Your task to perform on an android device: Go to sound settings Image 0: 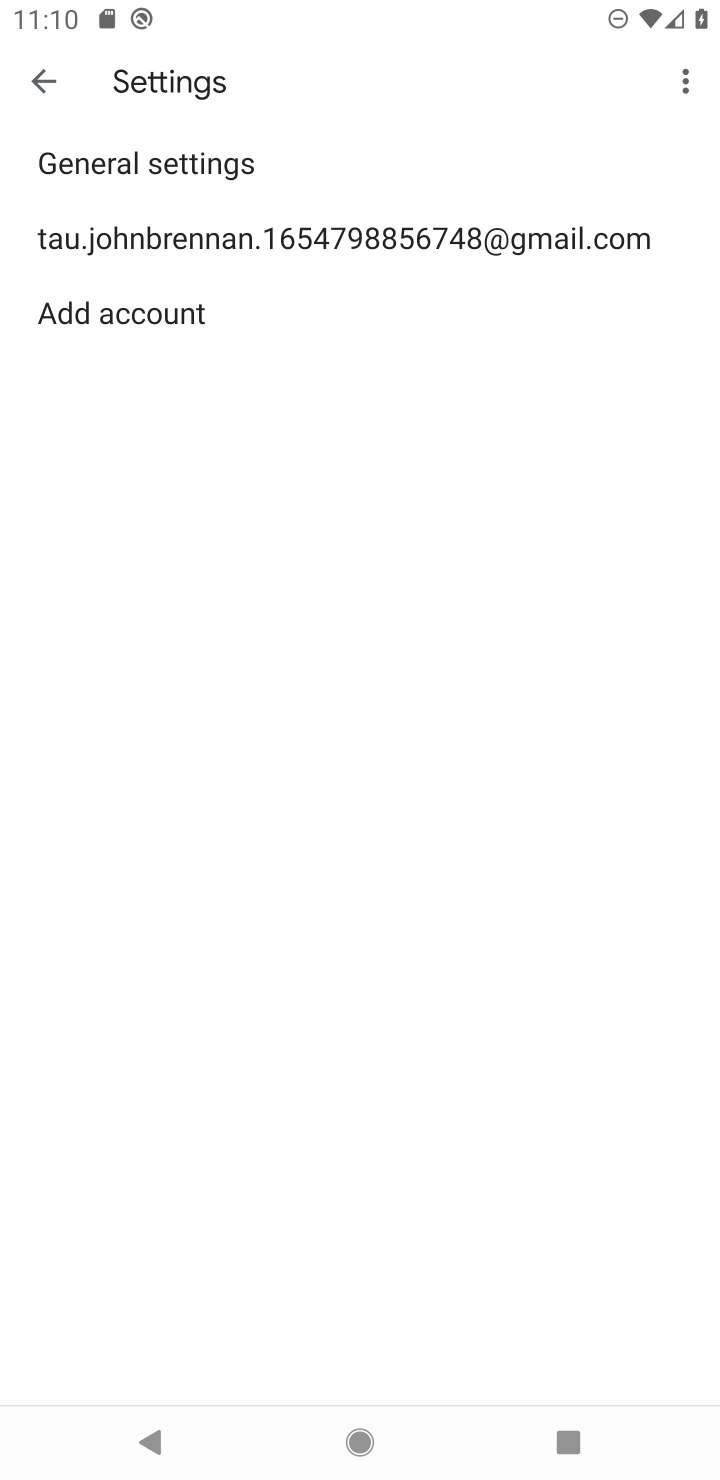
Step 0: press home button
Your task to perform on an android device: Go to sound settings Image 1: 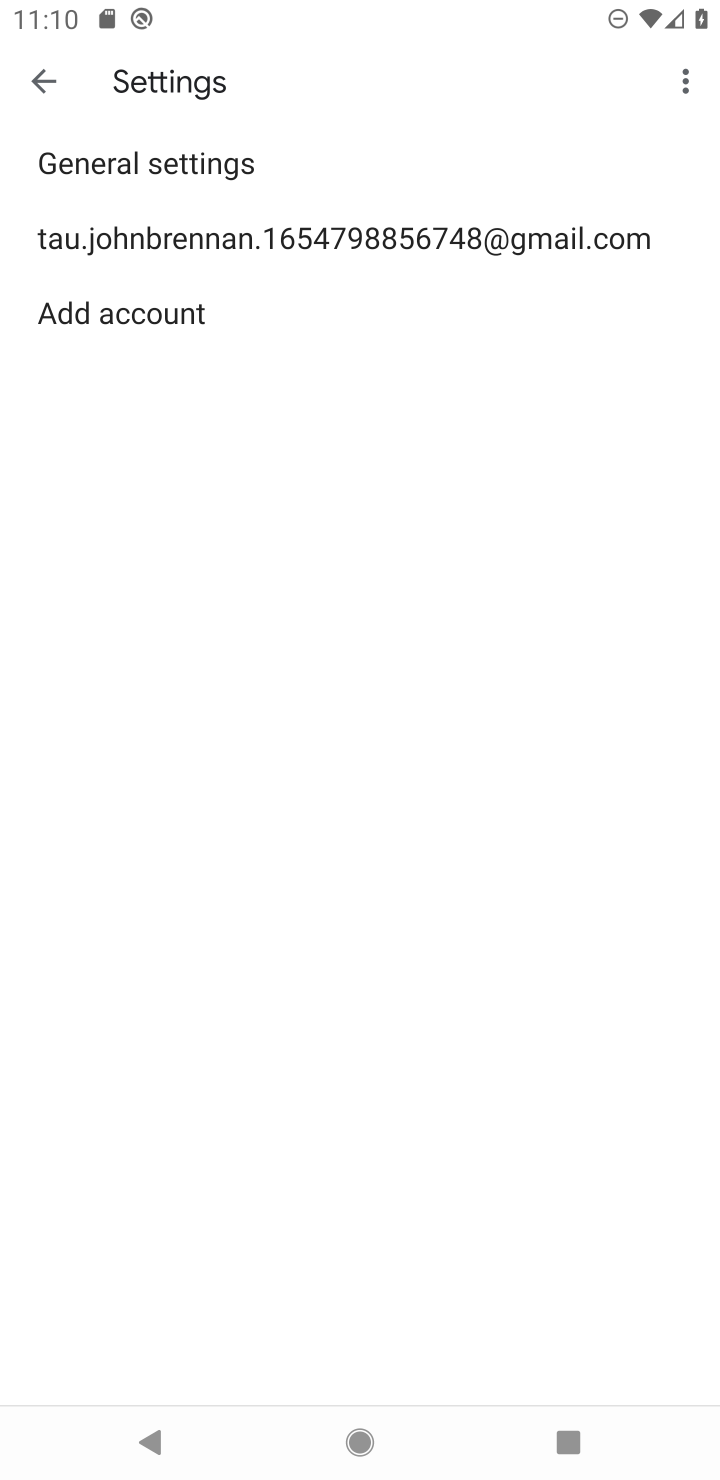
Step 1: drag from (472, 1159) to (441, 303)
Your task to perform on an android device: Go to sound settings Image 2: 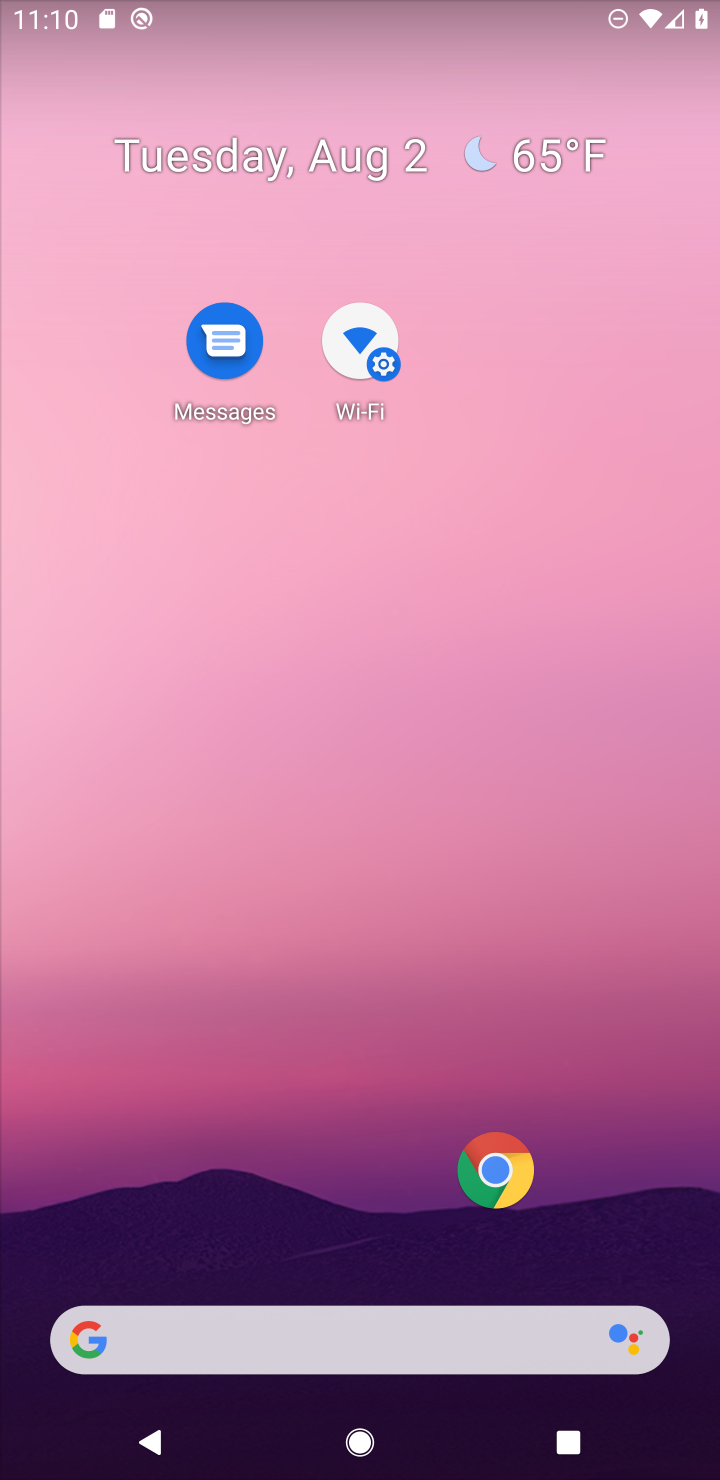
Step 2: drag from (235, 1136) to (395, 176)
Your task to perform on an android device: Go to sound settings Image 3: 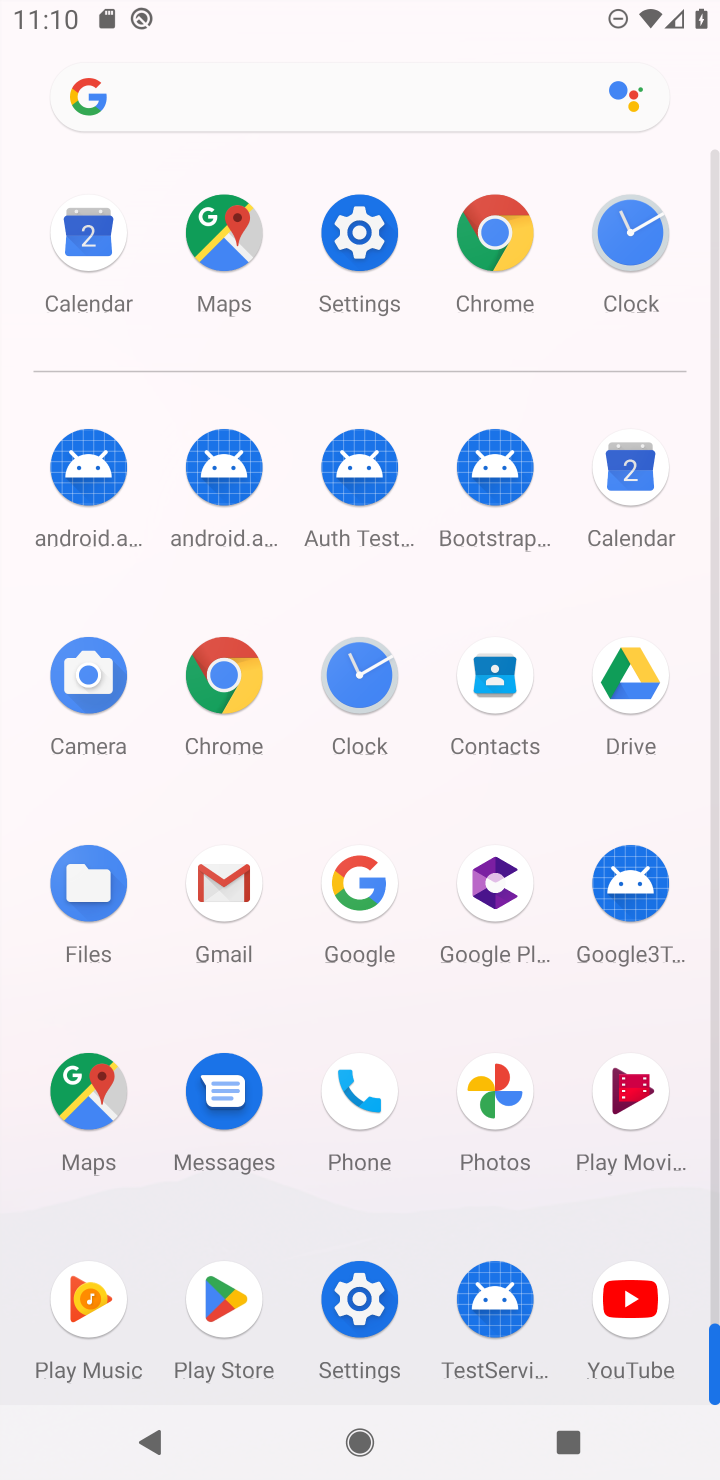
Step 3: click (346, 1298)
Your task to perform on an android device: Go to sound settings Image 4: 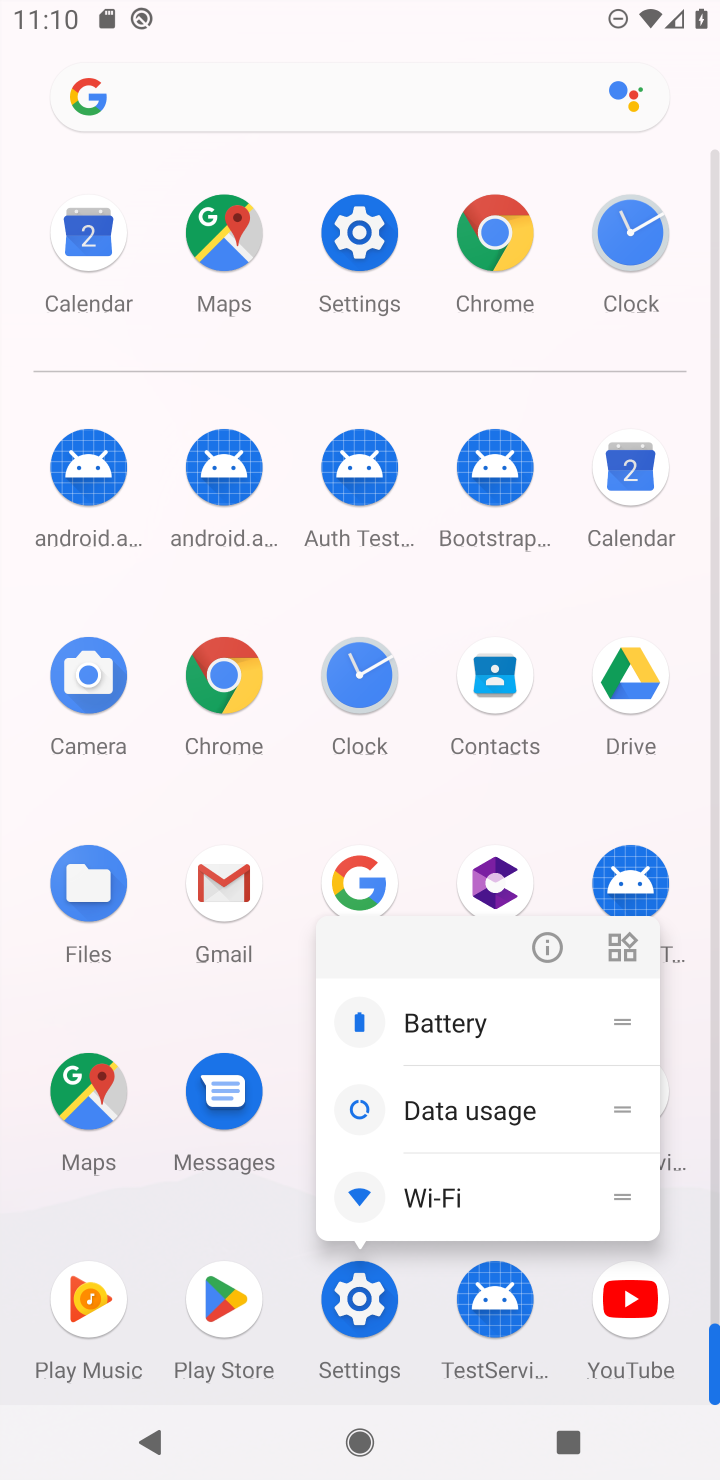
Step 4: click (542, 951)
Your task to perform on an android device: Go to sound settings Image 5: 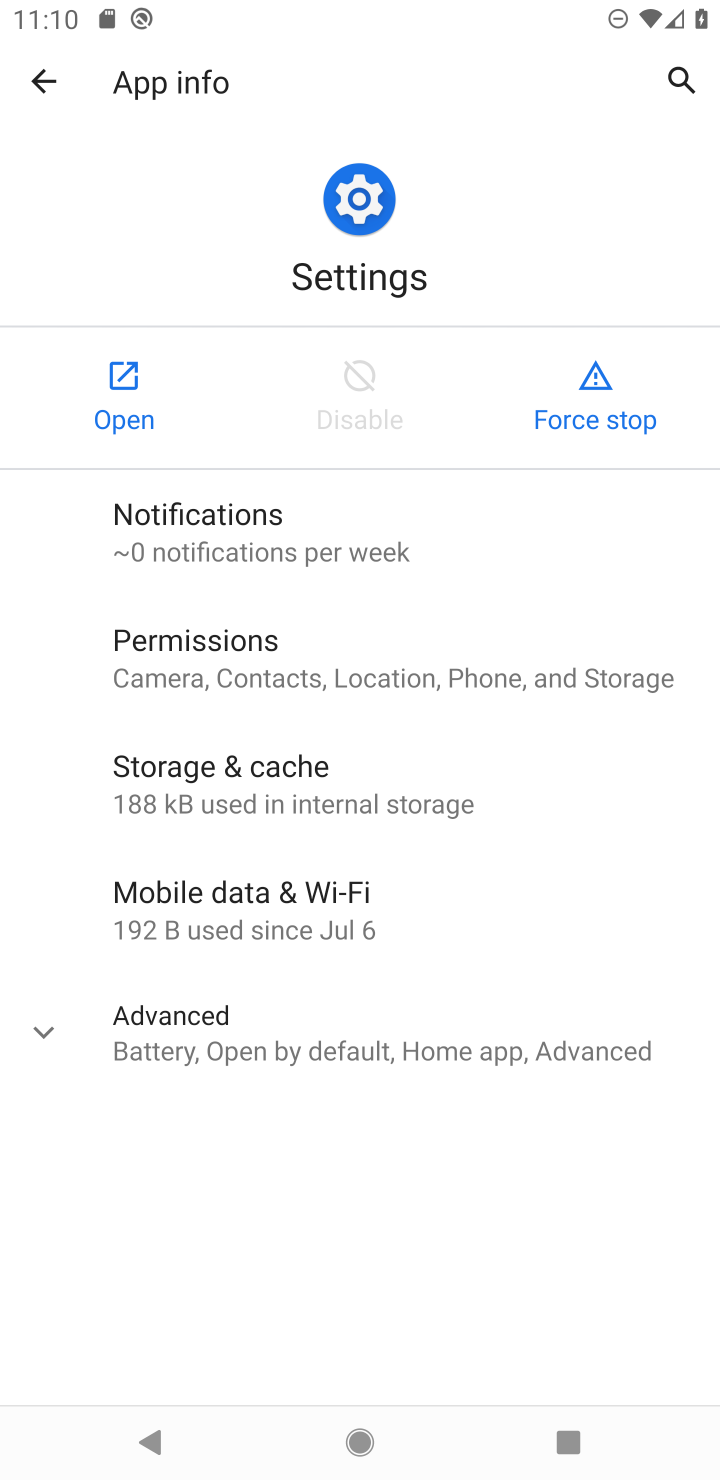
Step 5: click (136, 375)
Your task to perform on an android device: Go to sound settings Image 6: 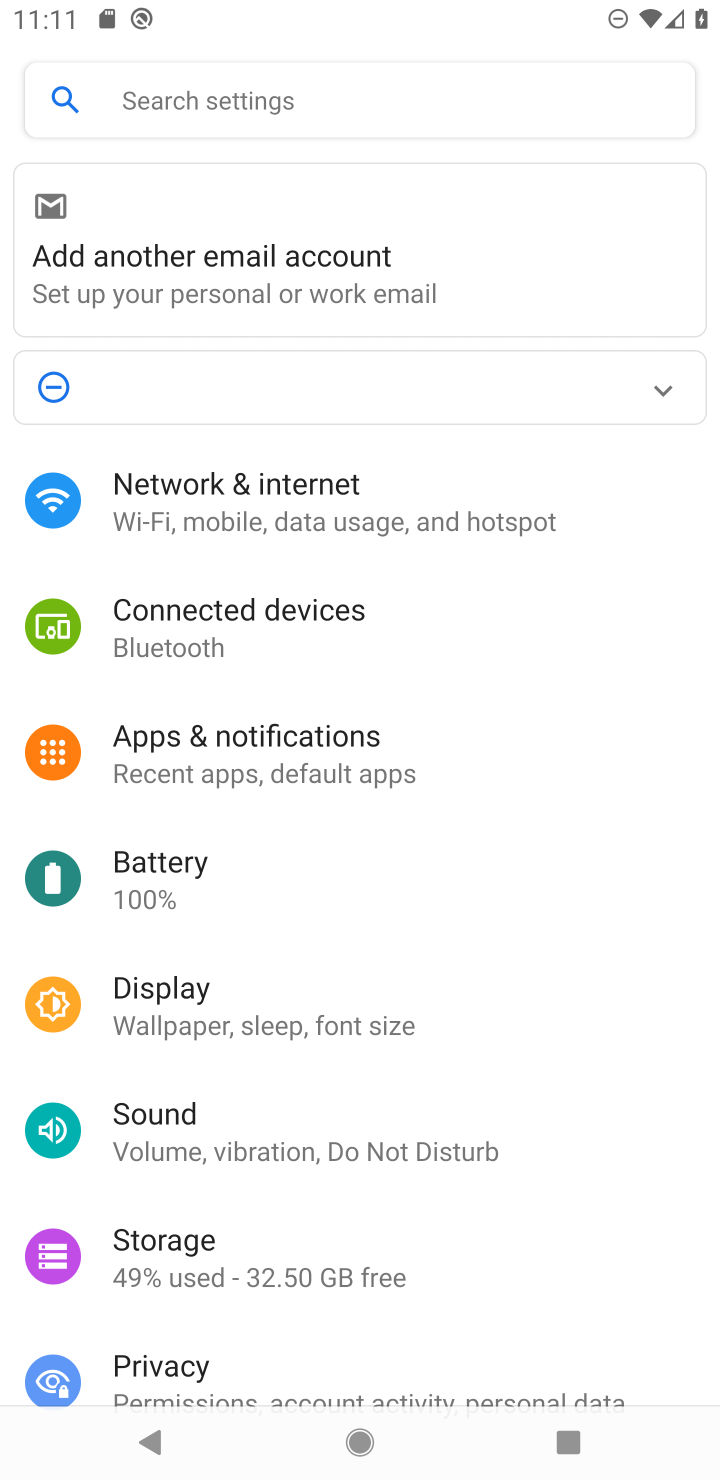
Step 6: click (205, 1121)
Your task to perform on an android device: Go to sound settings Image 7: 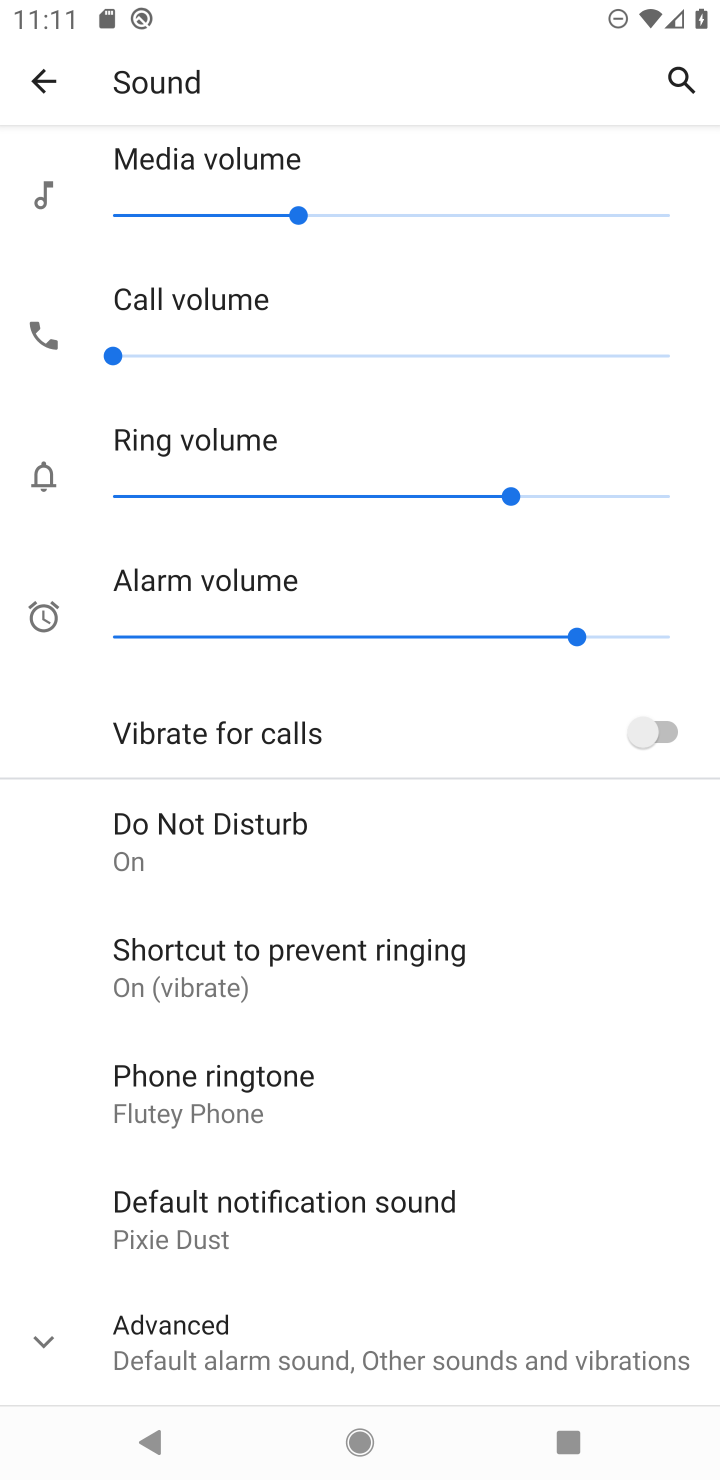
Step 7: task complete